Your task to perform on an android device: turn on translation in the chrome app Image 0: 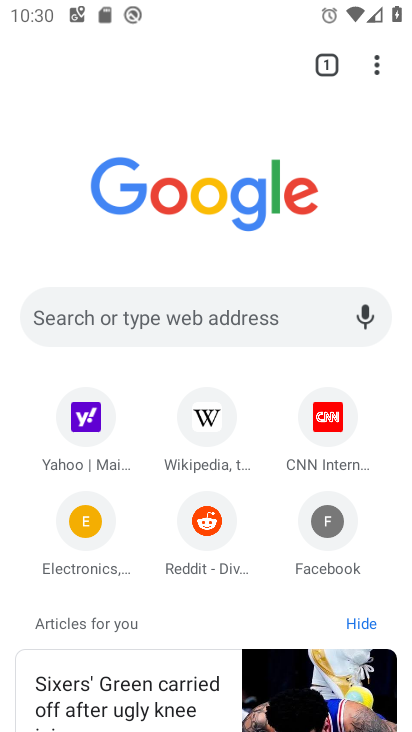
Step 0: press home button
Your task to perform on an android device: turn on translation in the chrome app Image 1: 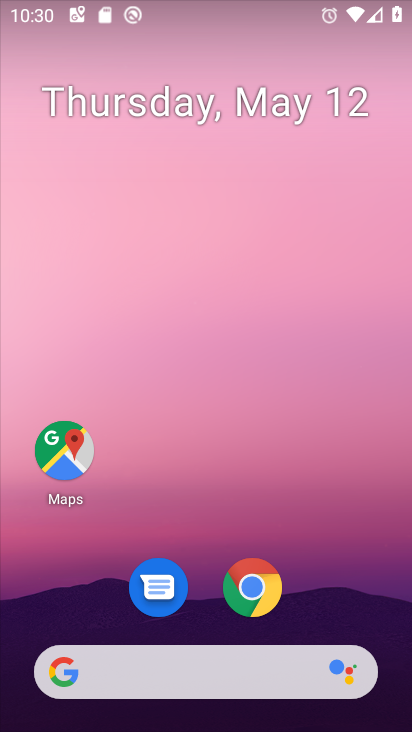
Step 1: drag from (380, 658) to (213, 8)
Your task to perform on an android device: turn on translation in the chrome app Image 2: 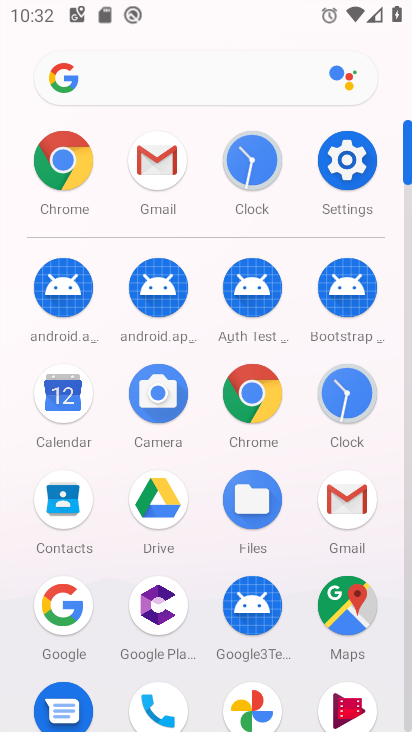
Step 2: click (251, 395)
Your task to perform on an android device: turn on translation in the chrome app Image 3: 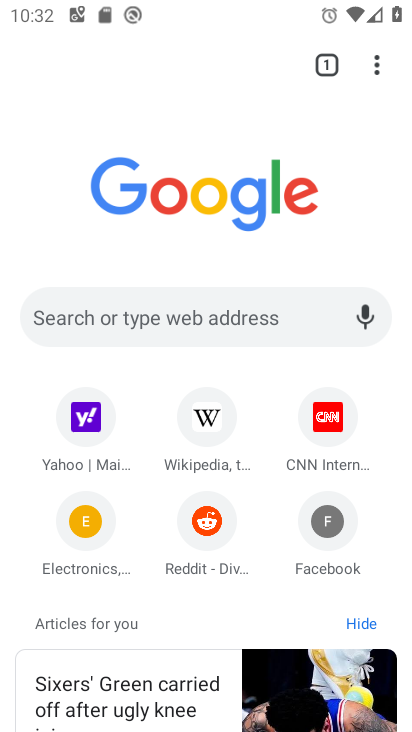
Step 3: click (375, 61)
Your task to perform on an android device: turn on translation in the chrome app Image 4: 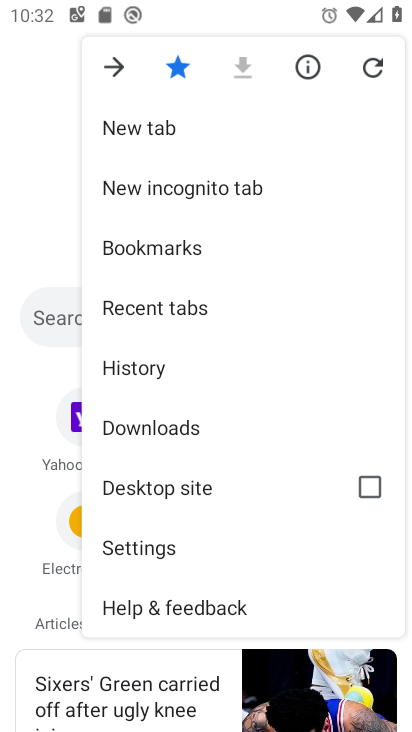
Step 4: click (193, 547)
Your task to perform on an android device: turn on translation in the chrome app Image 5: 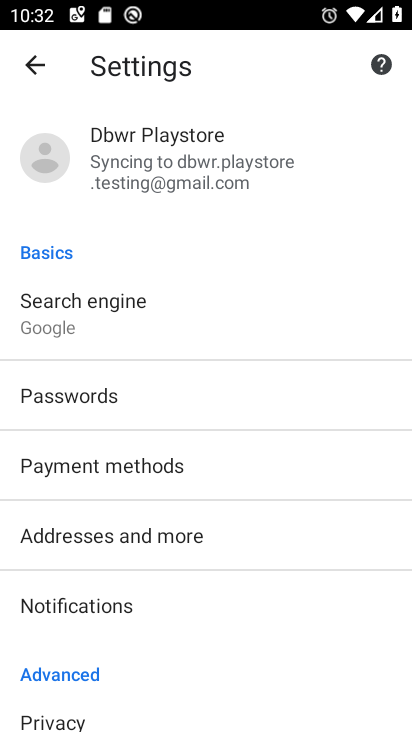
Step 5: drag from (151, 689) to (218, 135)
Your task to perform on an android device: turn on translation in the chrome app Image 6: 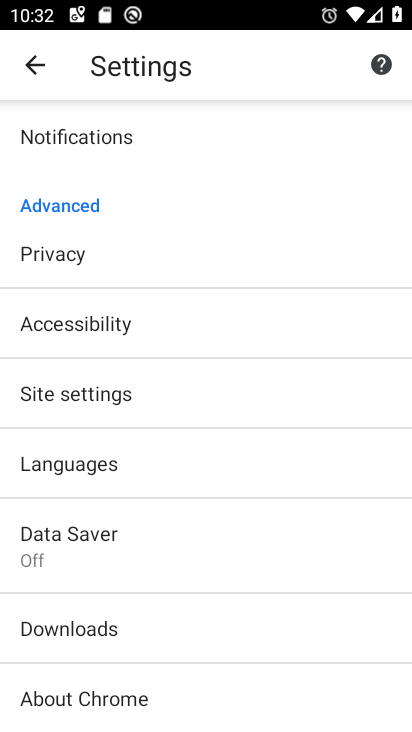
Step 6: click (174, 459)
Your task to perform on an android device: turn on translation in the chrome app Image 7: 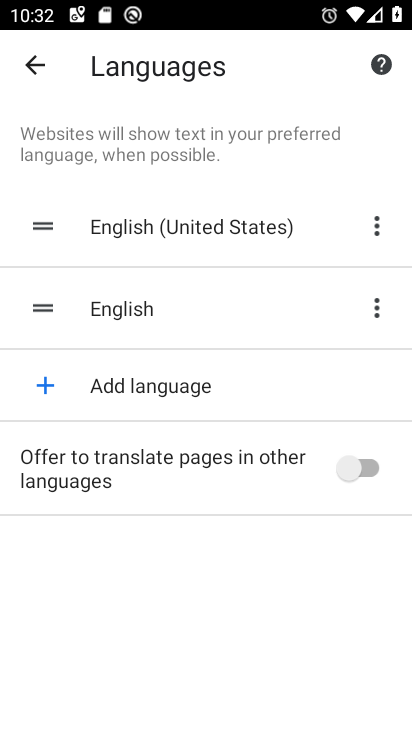
Step 7: click (337, 450)
Your task to perform on an android device: turn on translation in the chrome app Image 8: 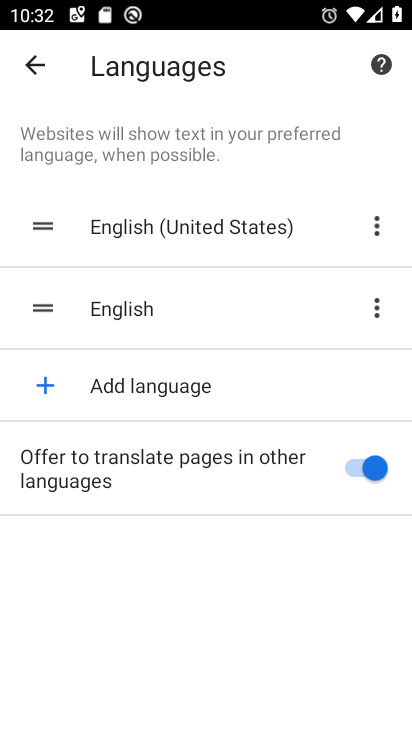
Step 8: task complete